Your task to perform on an android device: find photos in the google photos app Image 0: 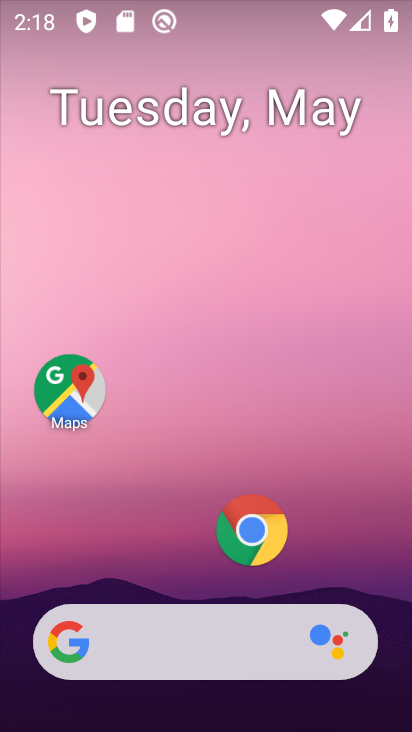
Step 0: drag from (197, 576) to (209, 165)
Your task to perform on an android device: find photos in the google photos app Image 1: 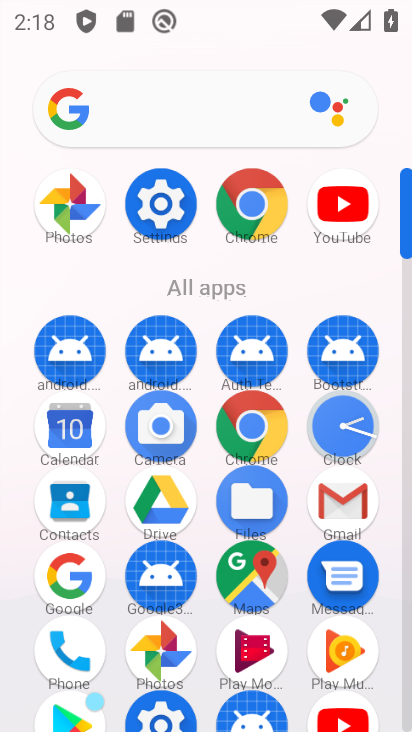
Step 1: click (155, 645)
Your task to perform on an android device: find photos in the google photos app Image 2: 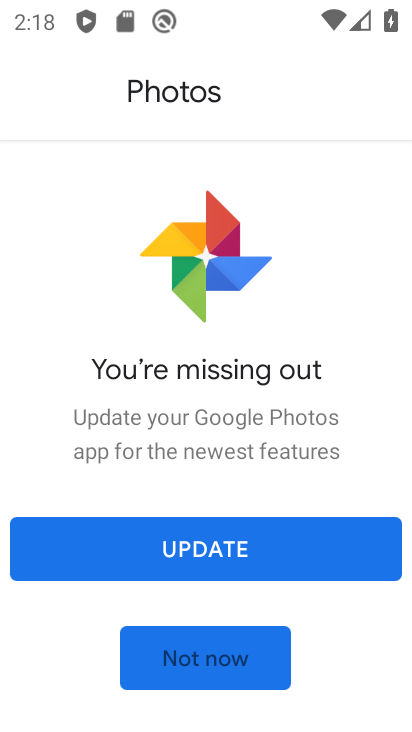
Step 2: click (204, 544)
Your task to perform on an android device: find photos in the google photos app Image 3: 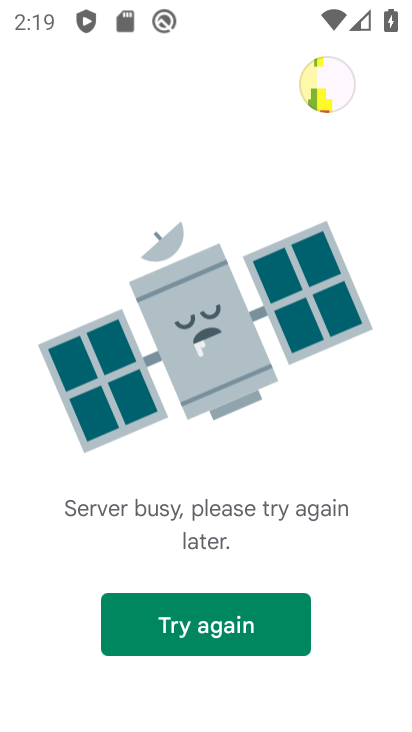
Step 3: click (205, 629)
Your task to perform on an android device: find photos in the google photos app Image 4: 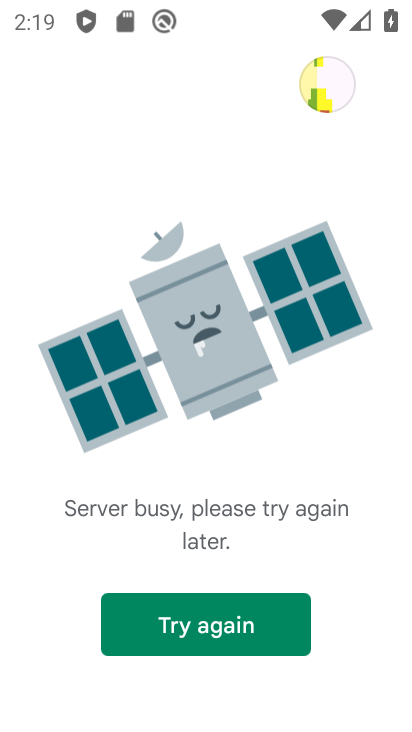
Step 4: press back button
Your task to perform on an android device: find photos in the google photos app Image 5: 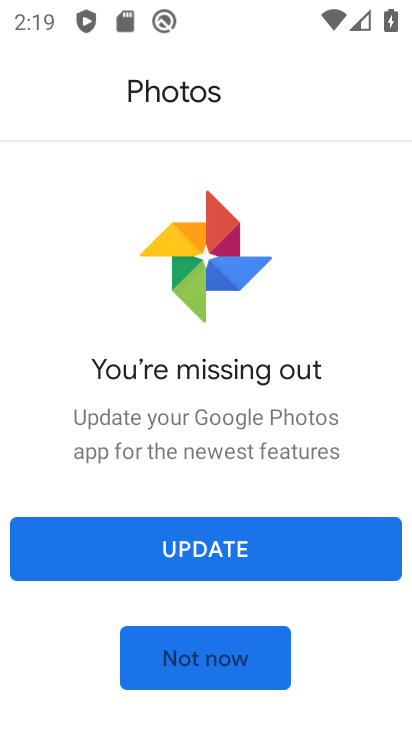
Step 5: click (218, 670)
Your task to perform on an android device: find photos in the google photos app Image 6: 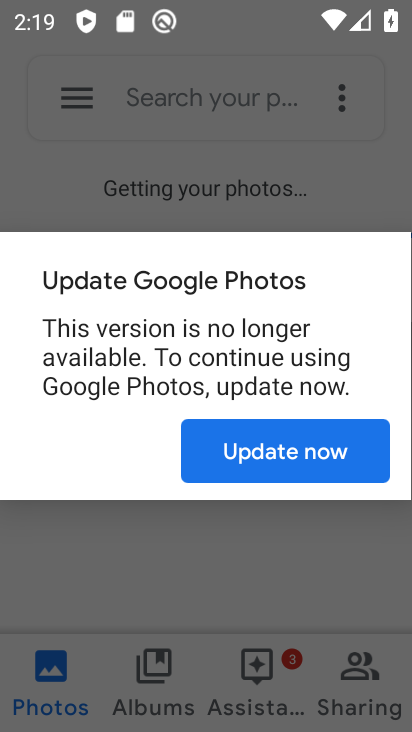
Step 6: click (54, 665)
Your task to perform on an android device: find photos in the google photos app Image 7: 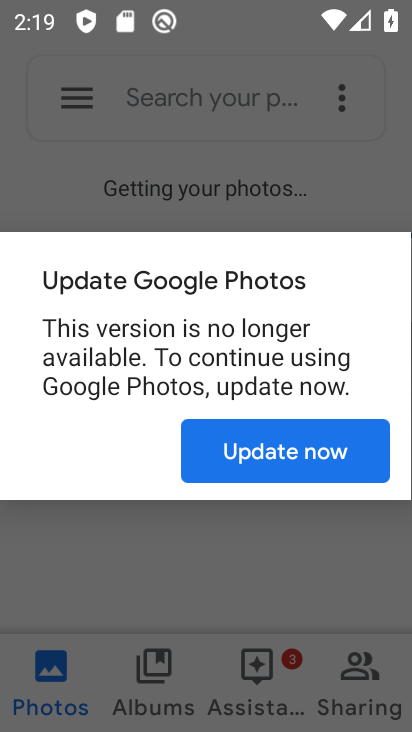
Step 7: click (290, 466)
Your task to perform on an android device: find photos in the google photos app Image 8: 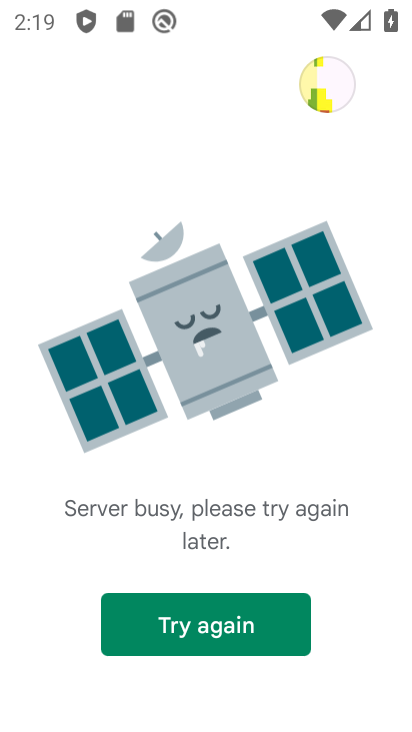
Step 8: task complete